Your task to perform on an android device: manage bookmarks in the chrome app Image 0: 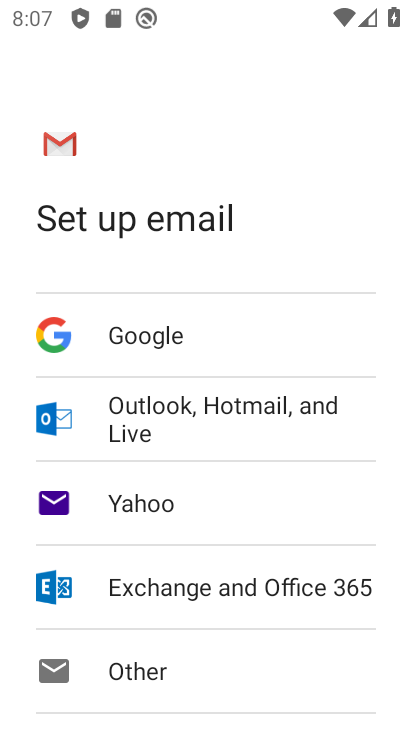
Step 0: press home button
Your task to perform on an android device: manage bookmarks in the chrome app Image 1: 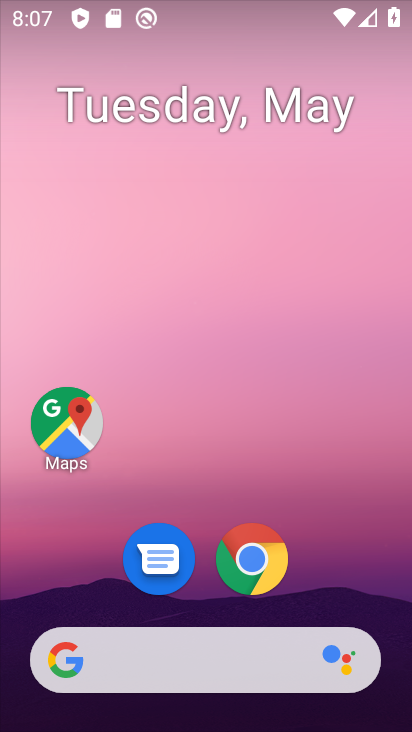
Step 1: click (226, 555)
Your task to perform on an android device: manage bookmarks in the chrome app Image 2: 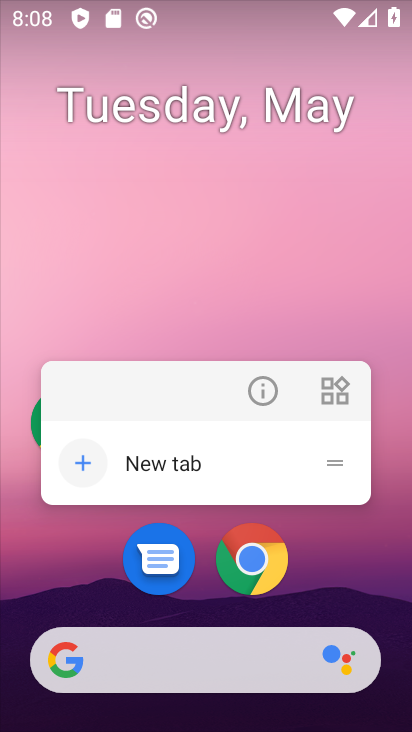
Step 2: click (260, 545)
Your task to perform on an android device: manage bookmarks in the chrome app Image 3: 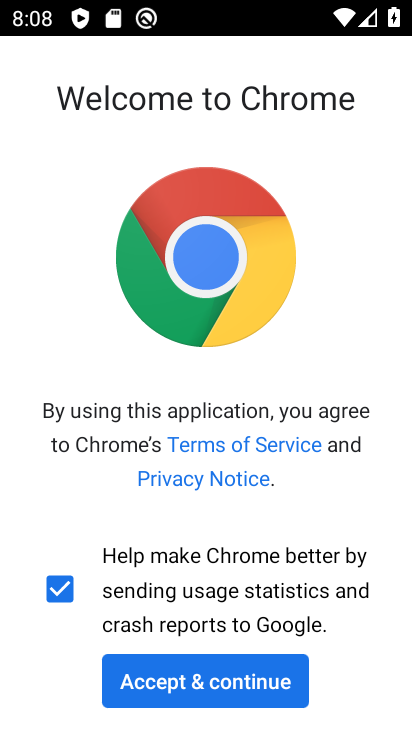
Step 3: click (207, 671)
Your task to perform on an android device: manage bookmarks in the chrome app Image 4: 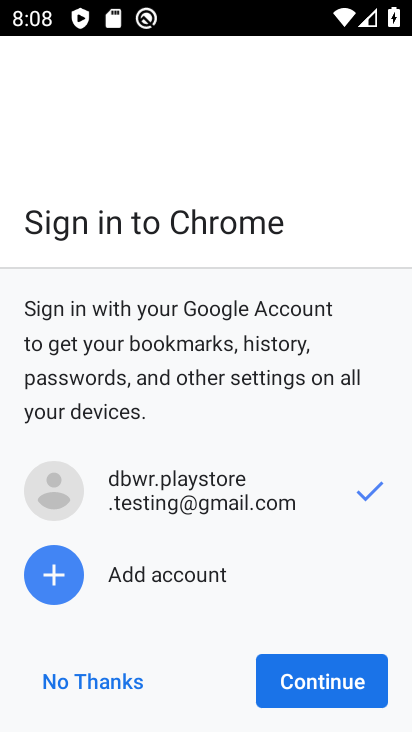
Step 4: click (378, 697)
Your task to perform on an android device: manage bookmarks in the chrome app Image 5: 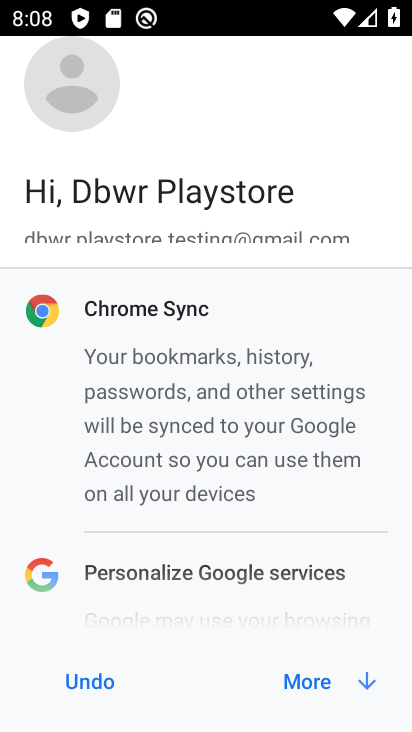
Step 5: click (323, 679)
Your task to perform on an android device: manage bookmarks in the chrome app Image 6: 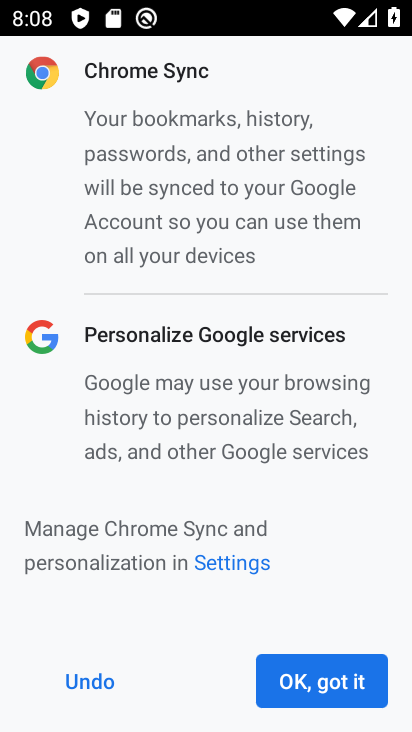
Step 6: click (320, 679)
Your task to perform on an android device: manage bookmarks in the chrome app Image 7: 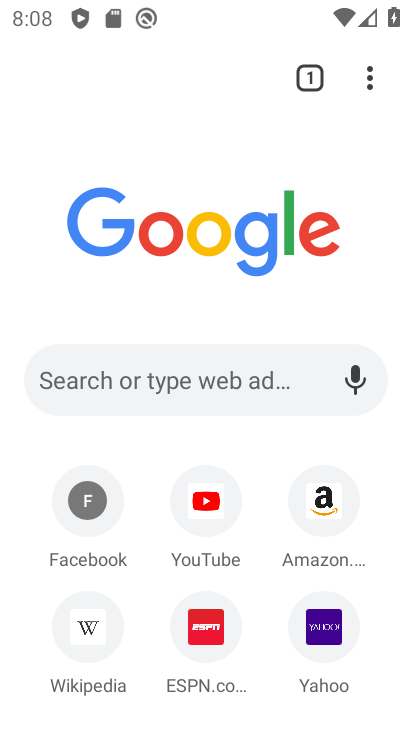
Step 7: click (368, 80)
Your task to perform on an android device: manage bookmarks in the chrome app Image 8: 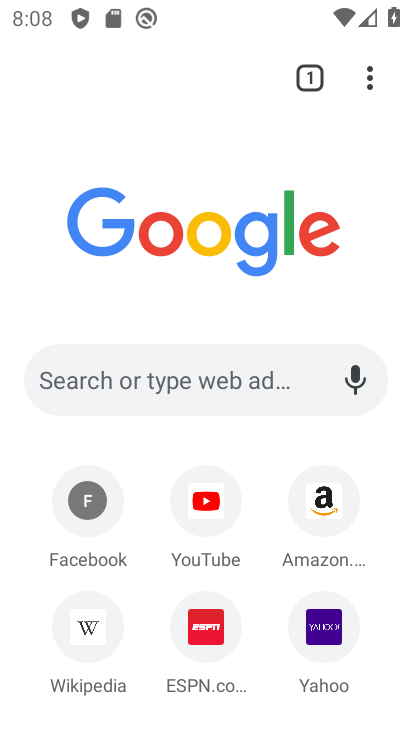
Step 8: drag from (368, 80) to (113, 260)
Your task to perform on an android device: manage bookmarks in the chrome app Image 9: 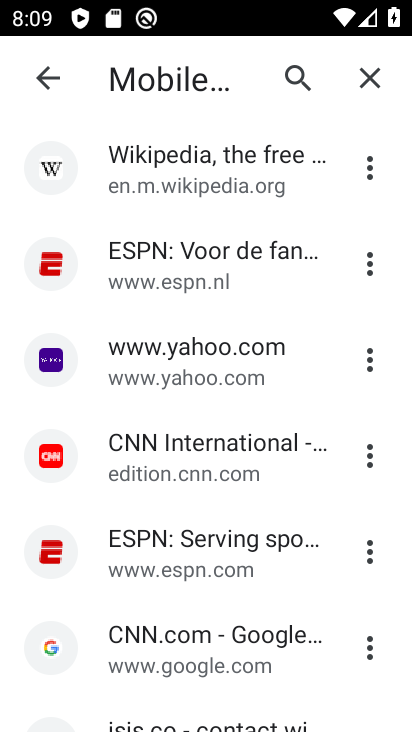
Step 9: click (369, 165)
Your task to perform on an android device: manage bookmarks in the chrome app Image 10: 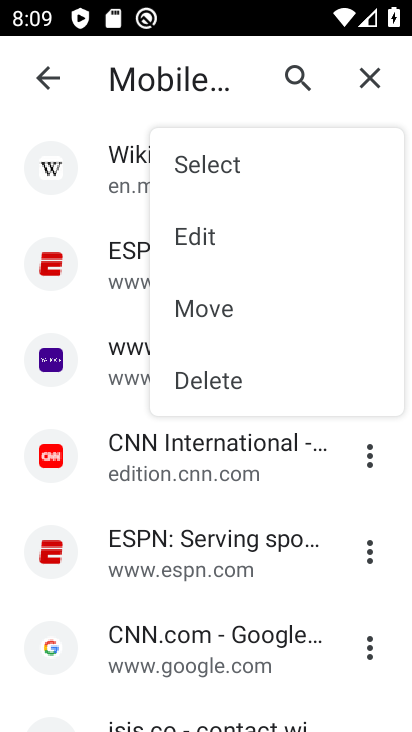
Step 10: click (183, 395)
Your task to perform on an android device: manage bookmarks in the chrome app Image 11: 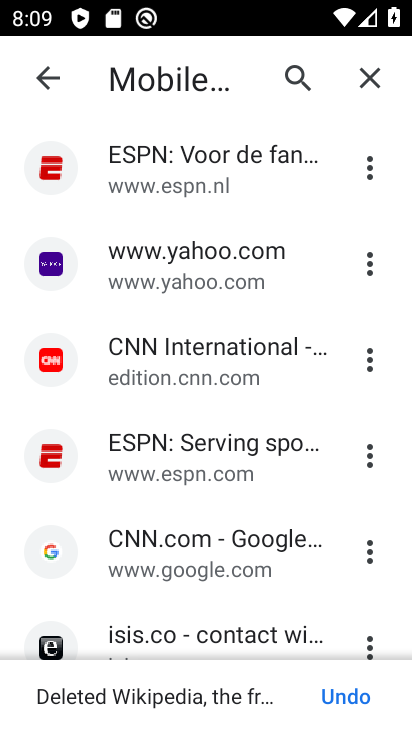
Step 11: task complete